Your task to perform on an android device: Go to CNN.com Image 0: 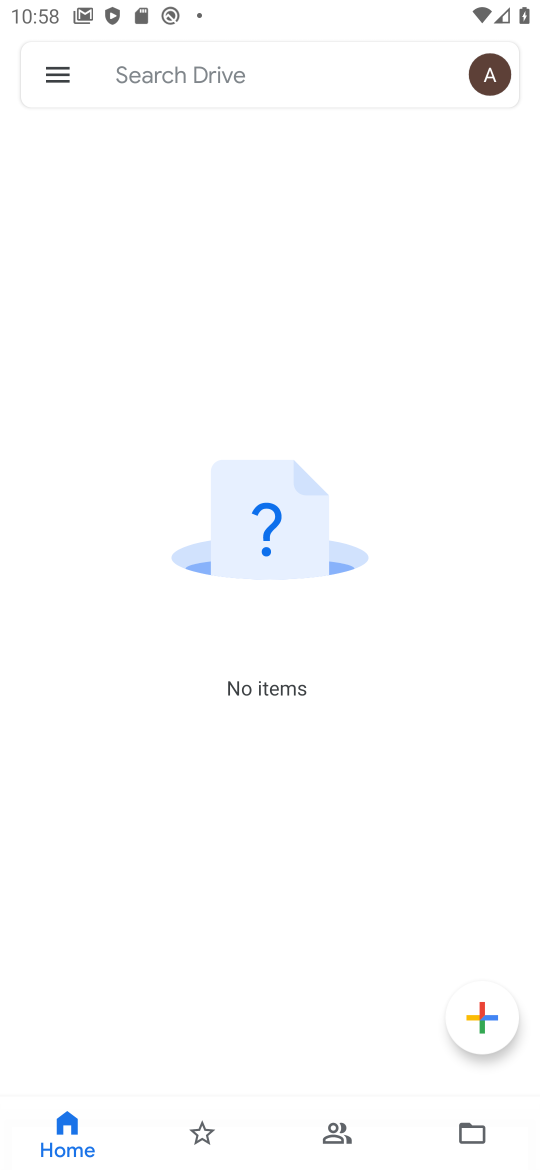
Step 0: press back button
Your task to perform on an android device: Go to CNN.com Image 1: 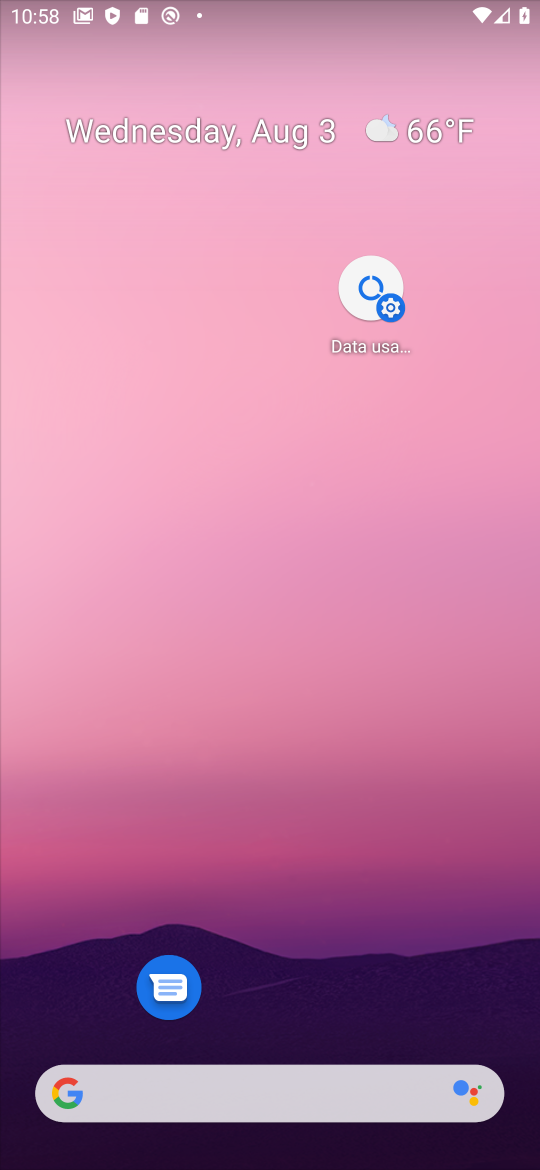
Step 1: drag from (287, 460) to (419, 324)
Your task to perform on an android device: Go to CNN.com Image 2: 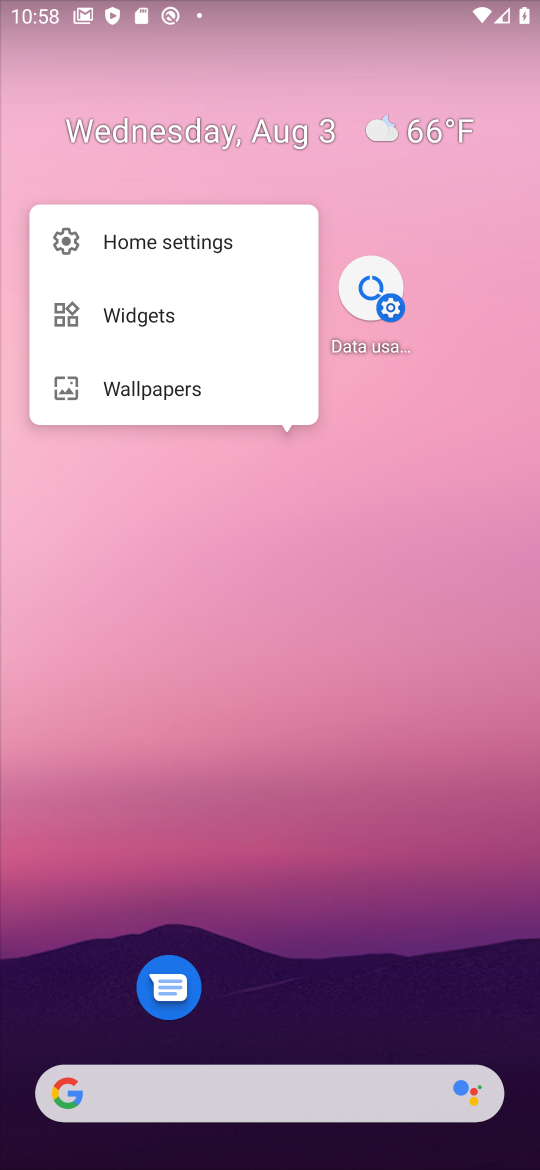
Step 2: drag from (334, 1004) to (332, 130)
Your task to perform on an android device: Go to CNN.com Image 3: 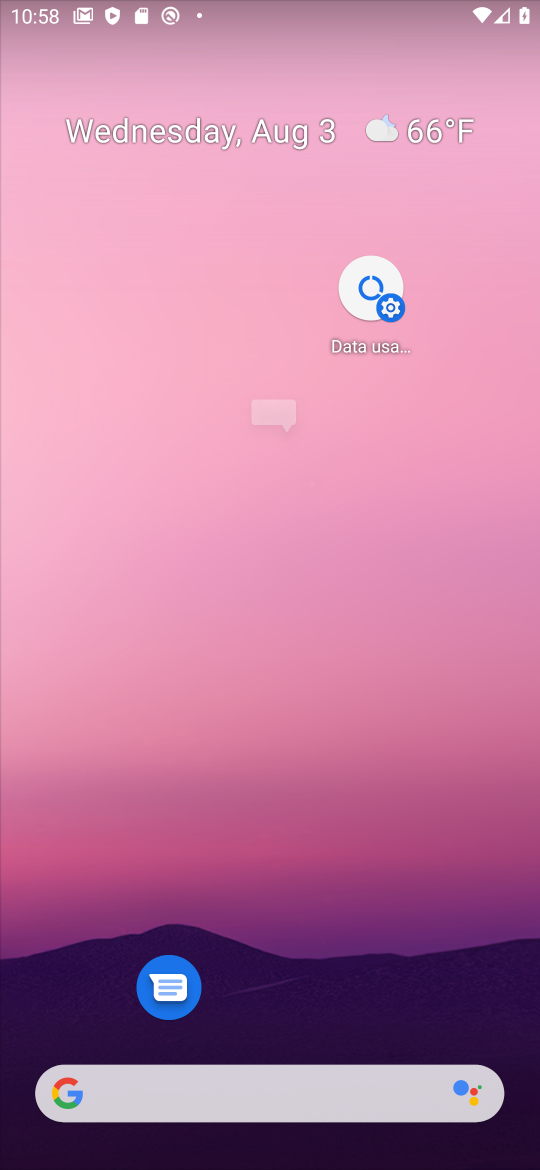
Step 3: drag from (445, 185) to (445, 124)
Your task to perform on an android device: Go to CNN.com Image 4: 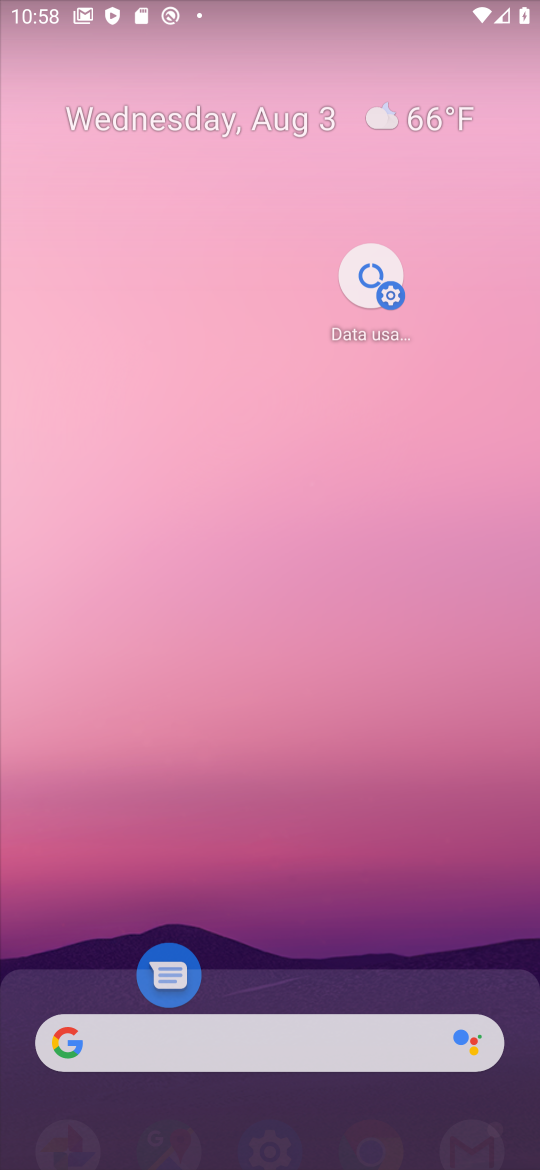
Step 4: drag from (483, 689) to (424, 178)
Your task to perform on an android device: Go to CNN.com Image 5: 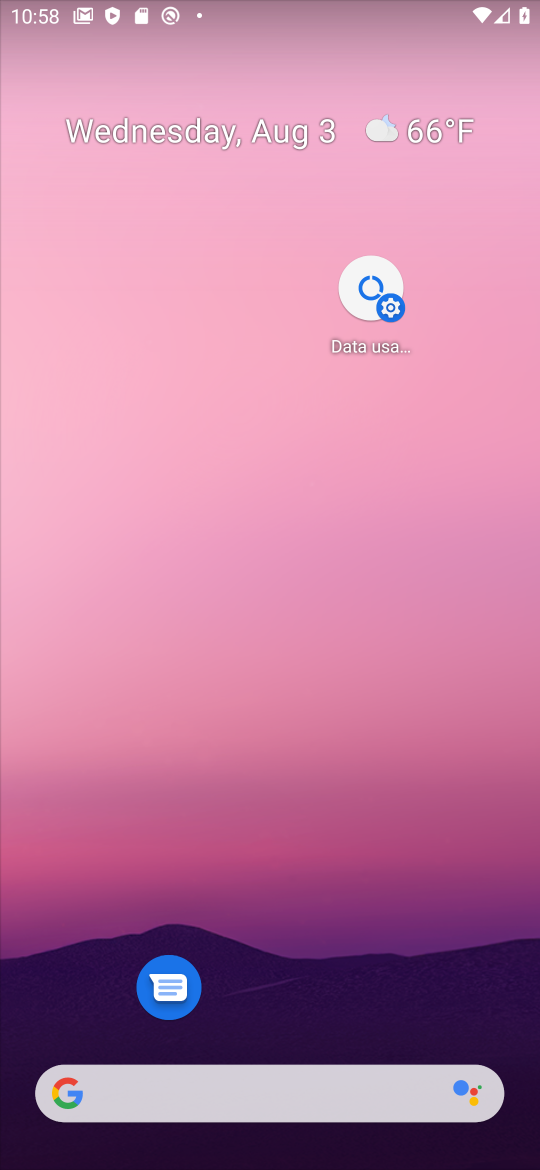
Step 5: click (266, 232)
Your task to perform on an android device: Go to CNN.com Image 6: 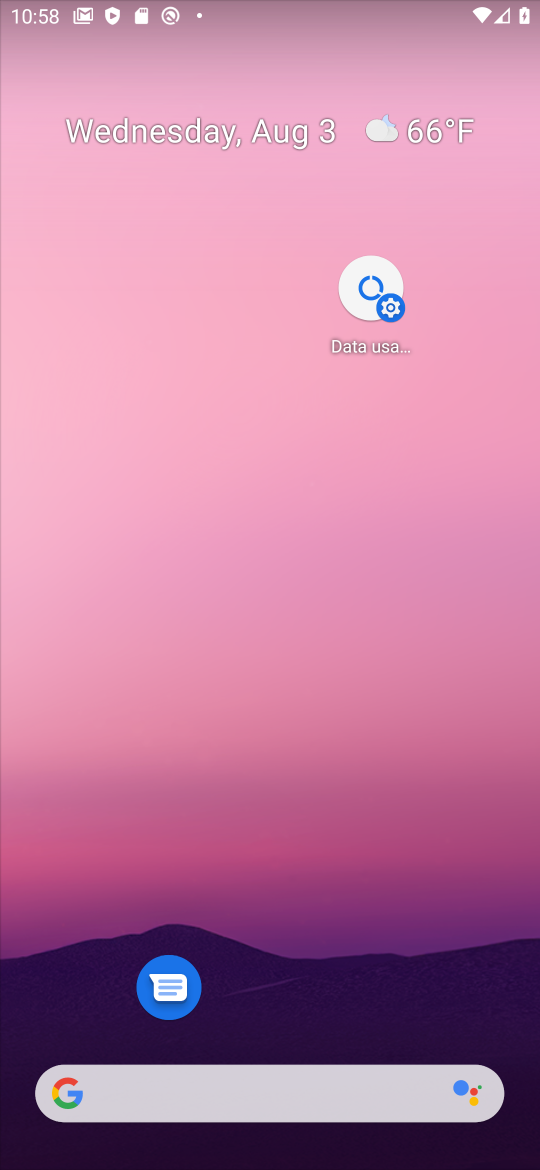
Step 6: drag from (358, 1063) to (323, 313)
Your task to perform on an android device: Go to CNN.com Image 7: 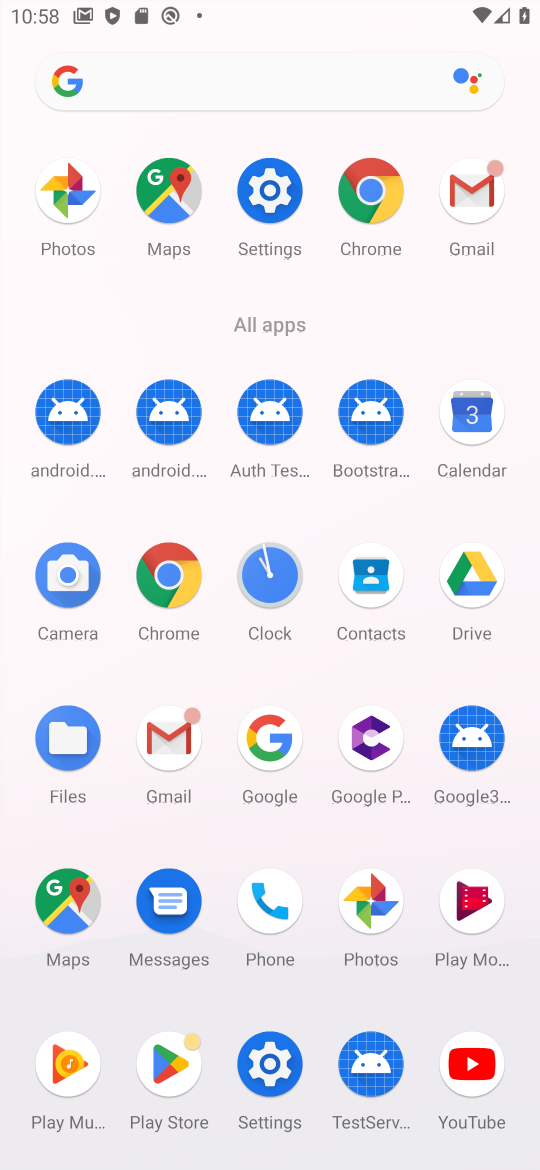
Step 7: click (384, 185)
Your task to perform on an android device: Go to CNN.com Image 8: 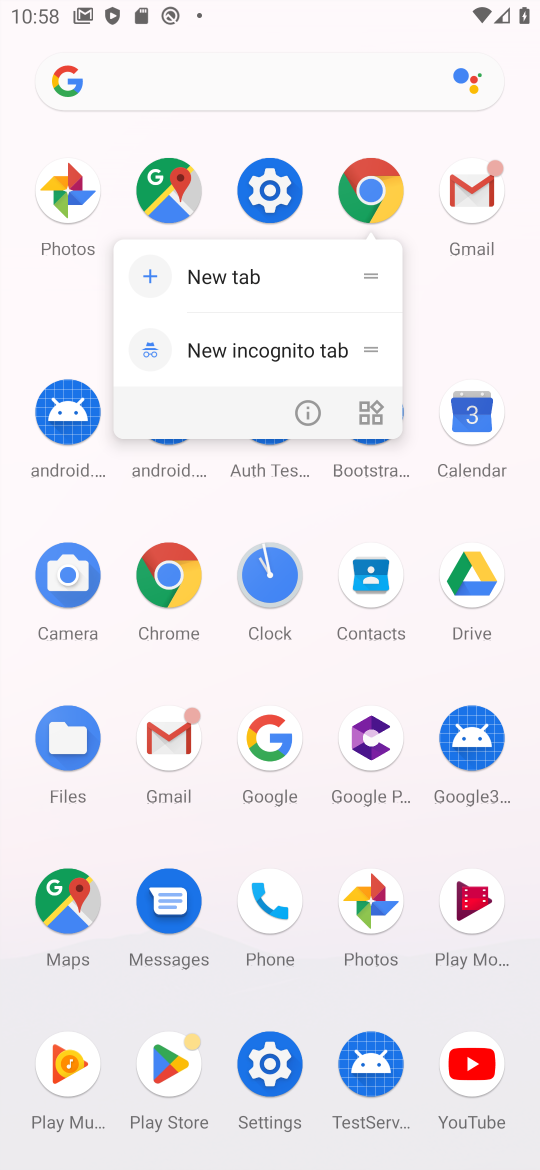
Step 8: click (375, 192)
Your task to perform on an android device: Go to CNN.com Image 9: 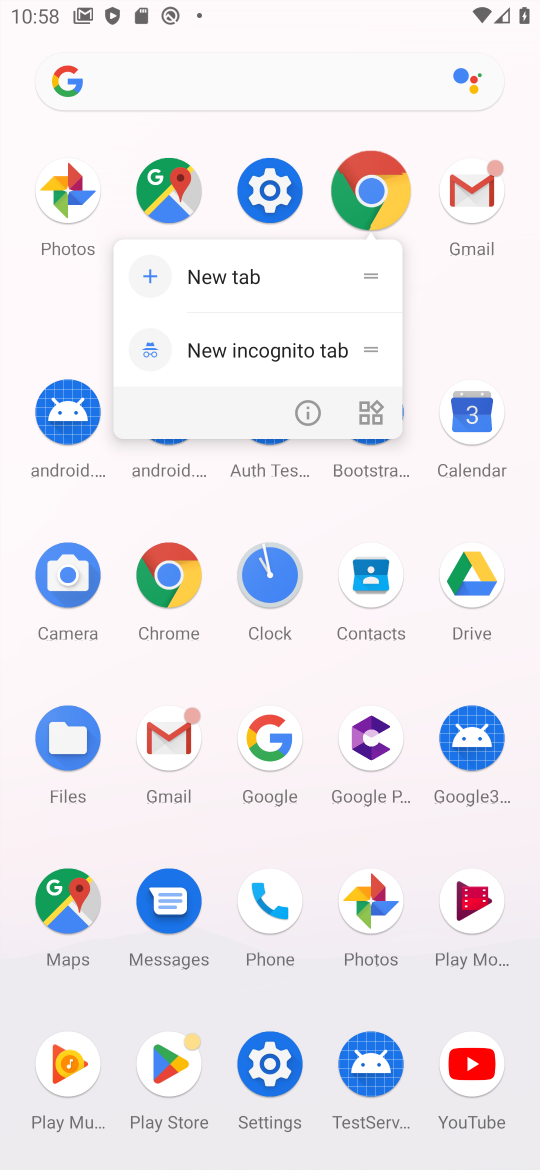
Step 9: click (375, 192)
Your task to perform on an android device: Go to CNN.com Image 10: 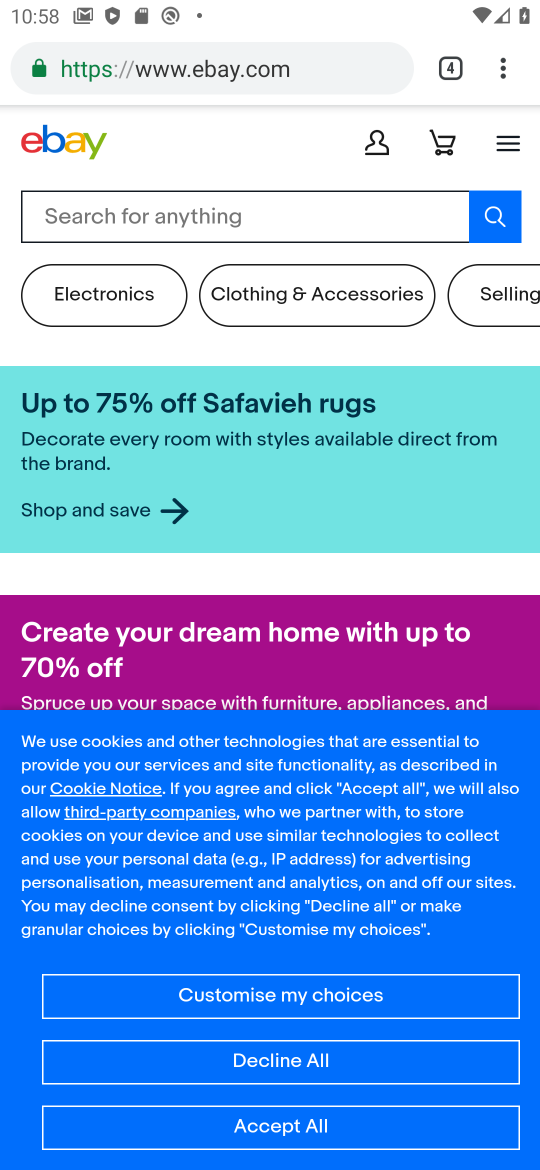
Step 10: click (191, 75)
Your task to perform on an android device: Go to CNN.com Image 11: 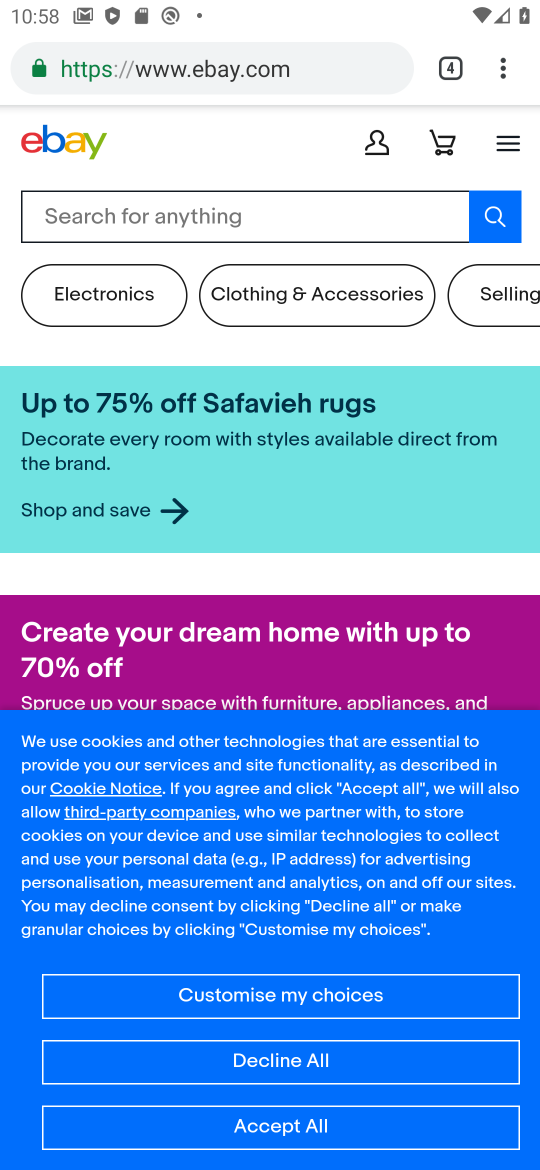
Step 11: drag from (498, 65) to (270, 142)
Your task to perform on an android device: Go to CNN.com Image 12: 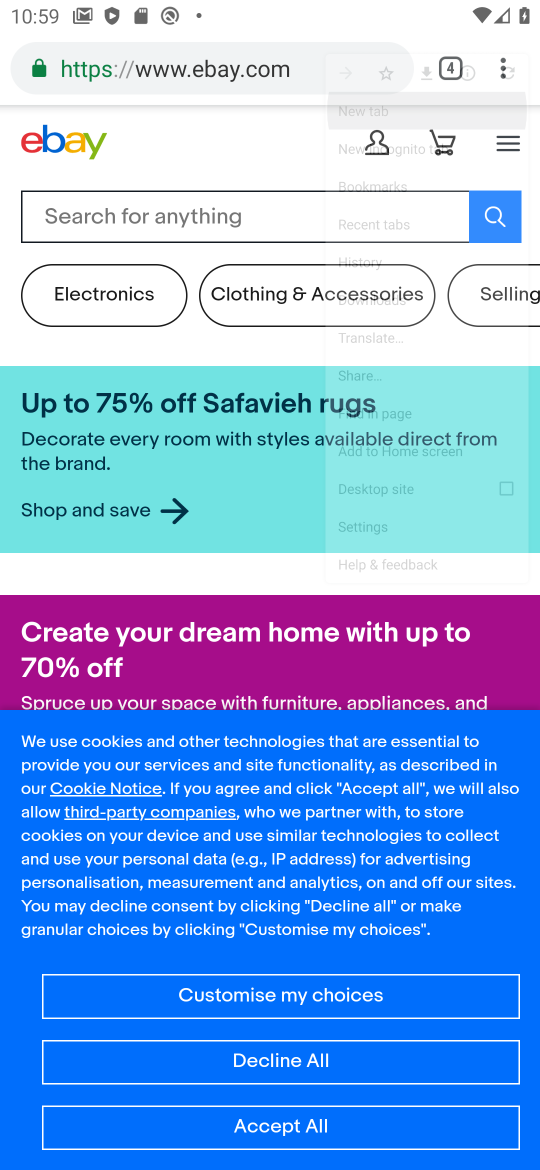
Step 12: click (270, 140)
Your task to perform on an android device: Go to CNN.com Image 13: 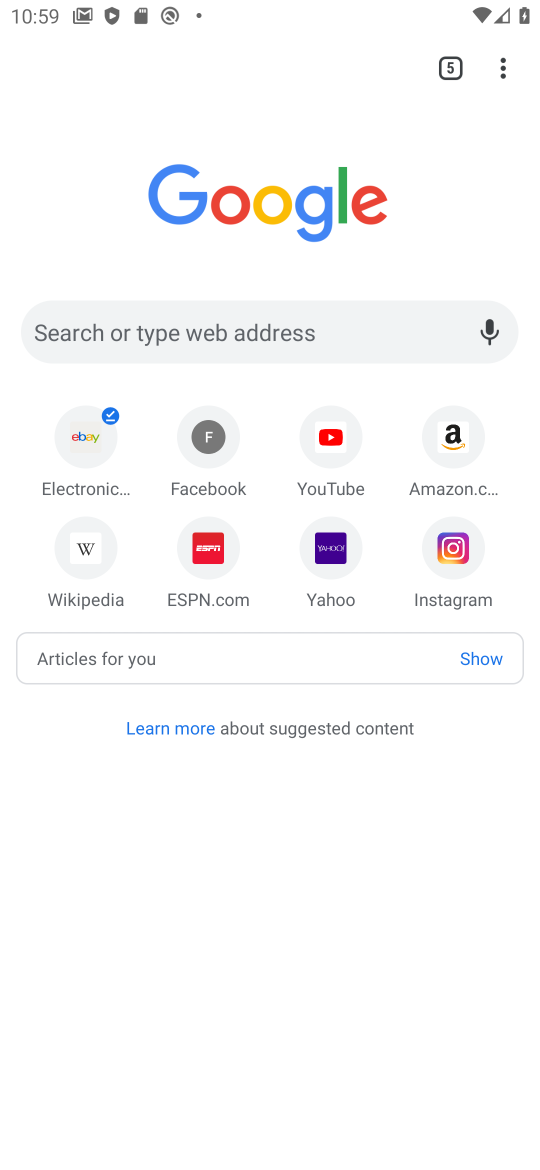
Step 13: click (94, 331)
Your task to perform on an android device: Go to CNN.com Image 14: 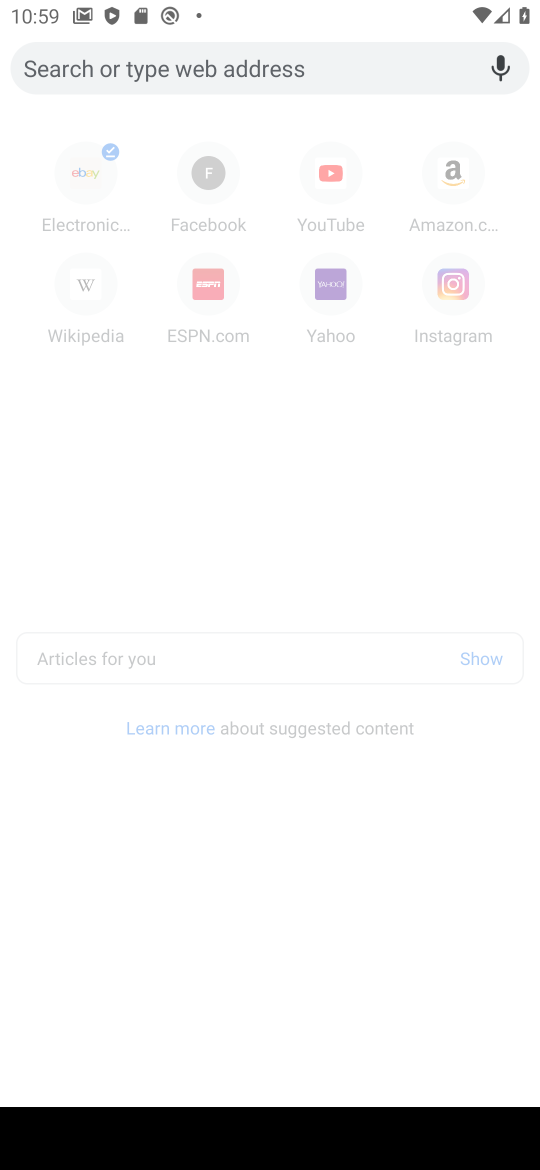
Step 14: type "CNN.com"
Your task to perform on an android device: Go to CNN.com Image 15: 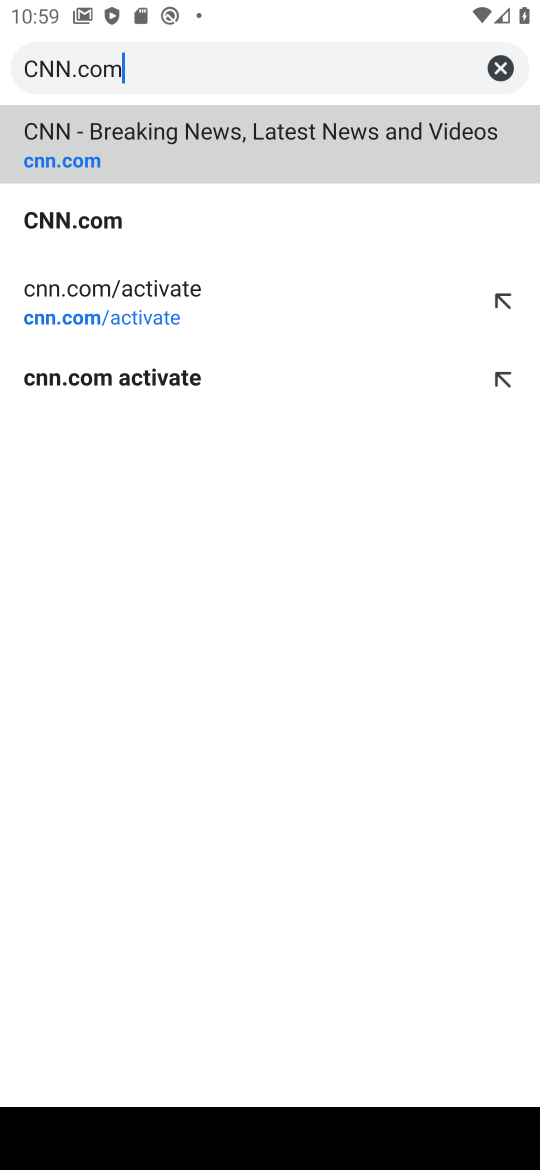
Step 15: click (181, 151)
Your task to perform on an android device: Go to CNN.com Image 16: 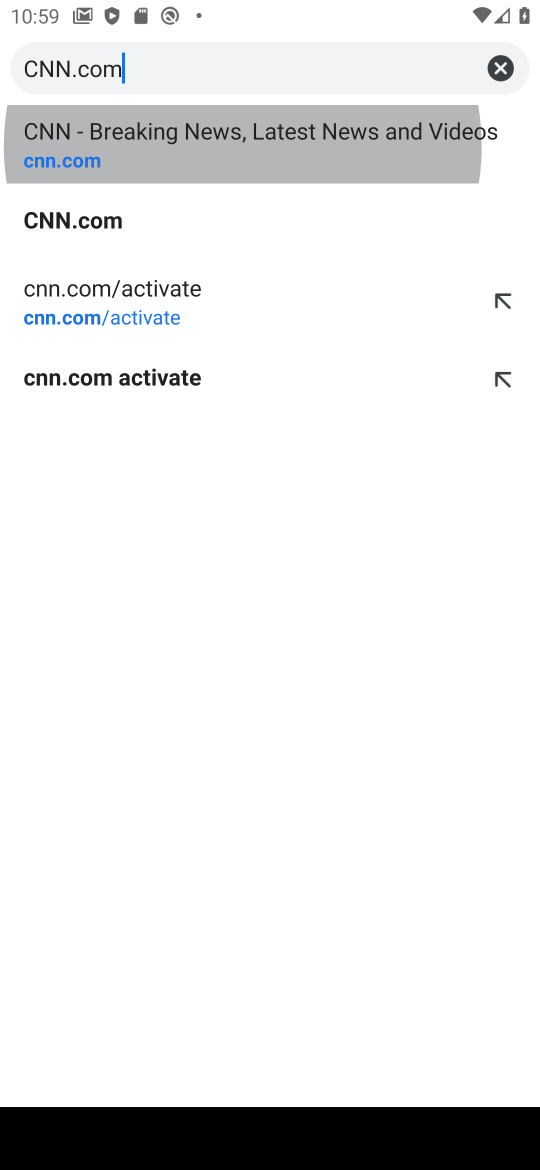
Step 16: click (214, 110)
Your task to perform on an android device: Go to CNN.com Image 17: 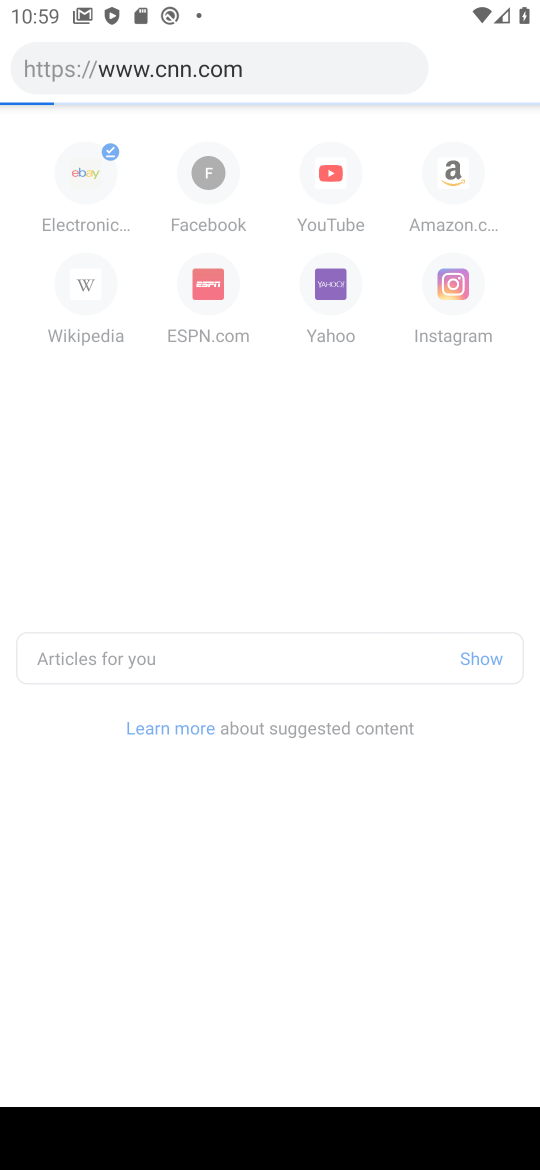
Step 17: click (214, 110)
Your task to perform on an android device: Go to CNN.com Image 18: 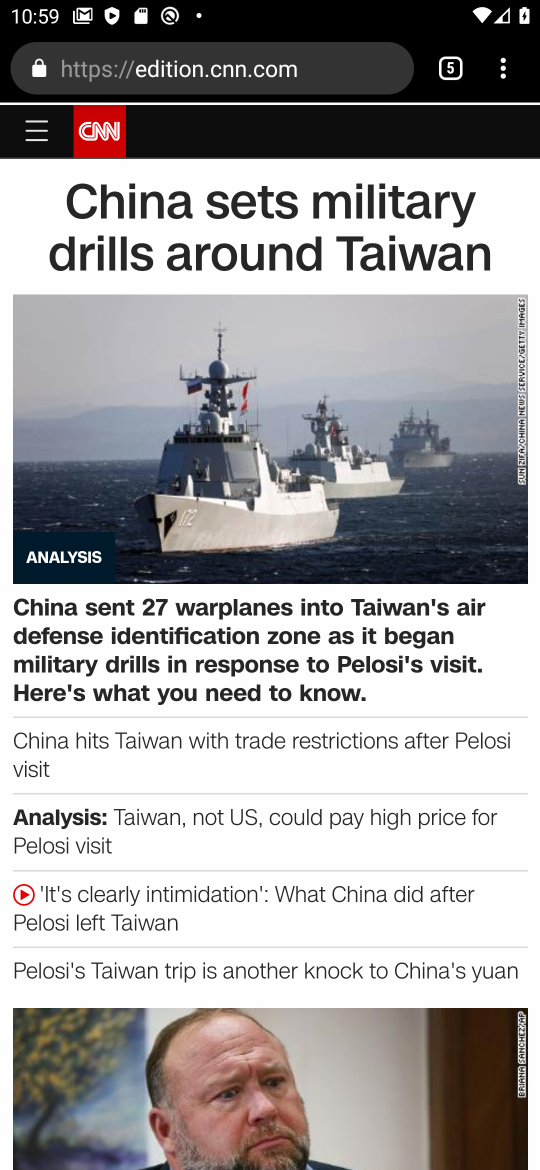
Step 18: task complete